Your task to perform on an android device: remove spam from my inbox in the gmail app Image 0: 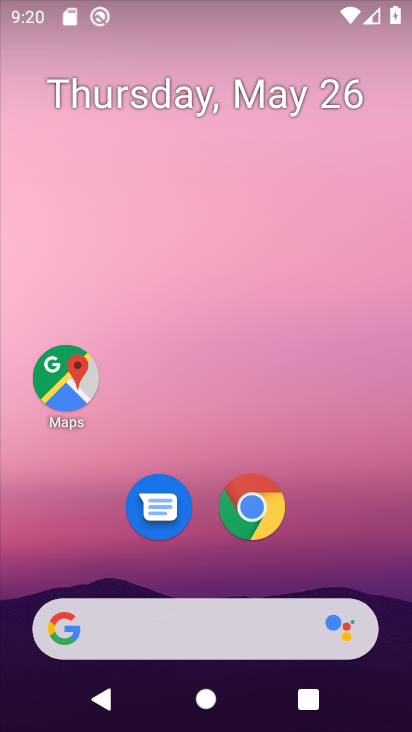
Step 0: drag from (393, 583) to (385, 169)
Your task to perform on an android device: remove spam from my inbox in the gmail app Image 1: 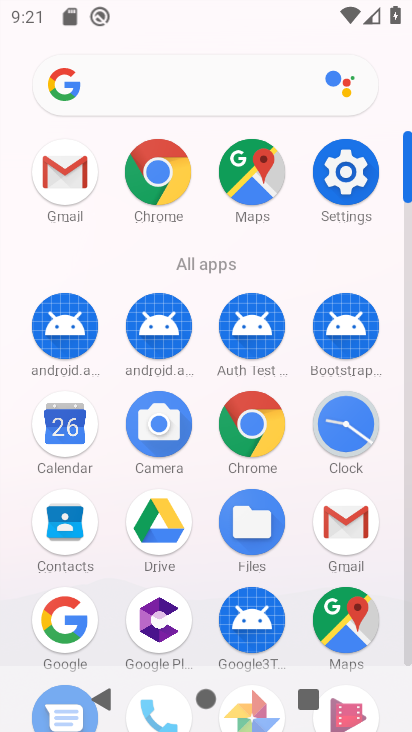
Step 1: click (375, 527)
Your task to perform on an android device: remove spam from my inbox in the gmail app Image 2: 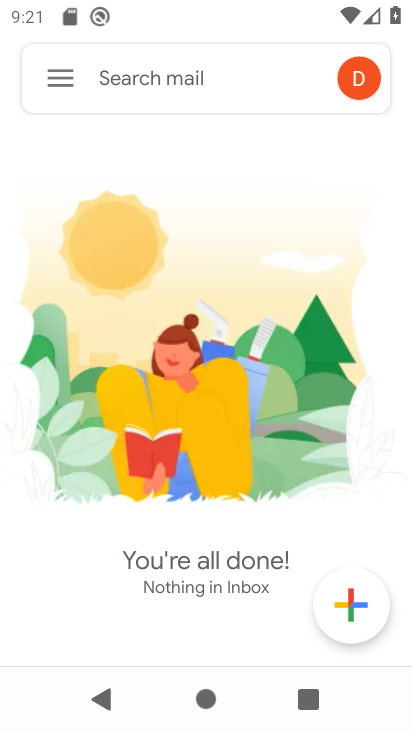
Step 2: click (67, 88)
Your task to perform on an android device: remove spam from my inbox in the gmail app Image 3: 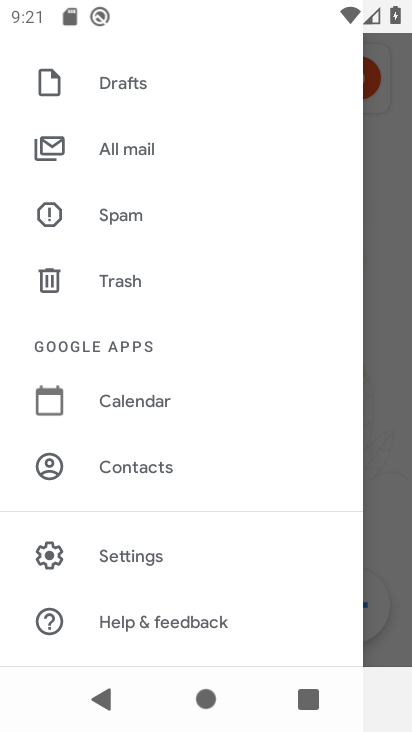
Step 3: click (123, 214)
Your task to perform on an android device: remove spam from my inbox in the gmail app Image 4: 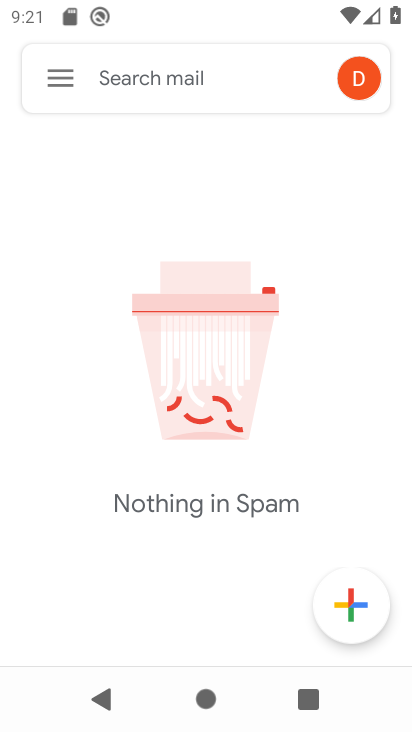
Step 4: task complete